Your task to perform on an android device: turn on translation in the chrome app Image 0: 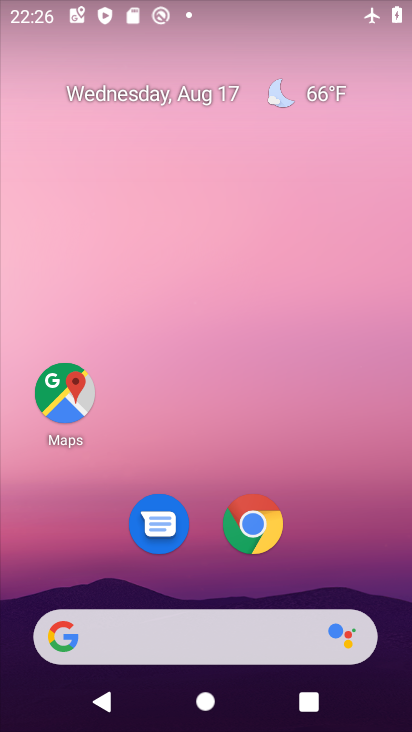
Step 0: click (253, 518)
Your task to perform on an android device: turn on translation in the chrome app Image 1: 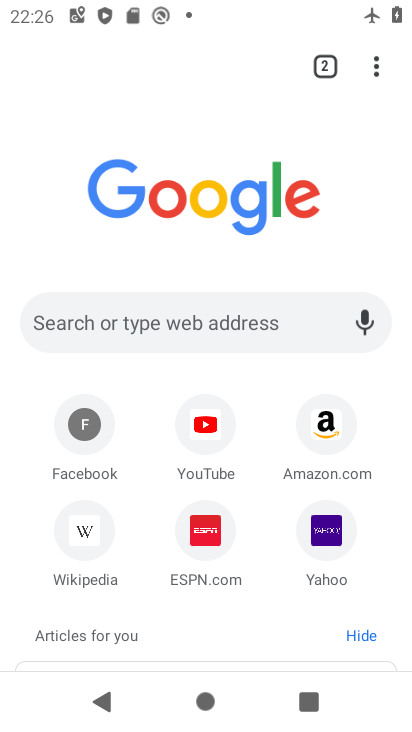
Step 1: click (375, 65)
Your task to perform on an android device: turn on translation in the chrome app Image 2: 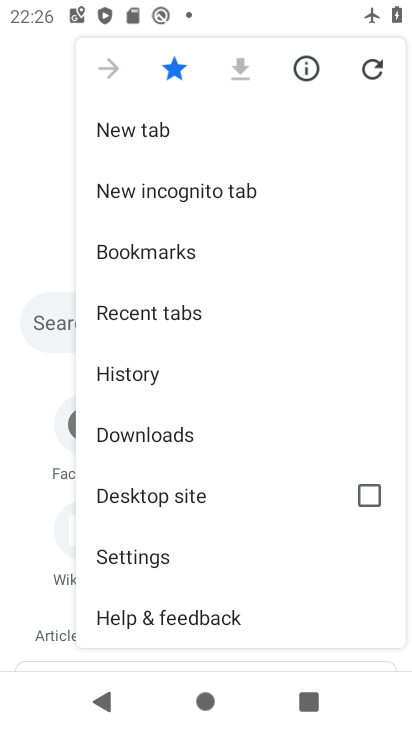
Step 2: click (175, 551)
Your task to perform on an android device: turn on translation in the chrome app Image 3: 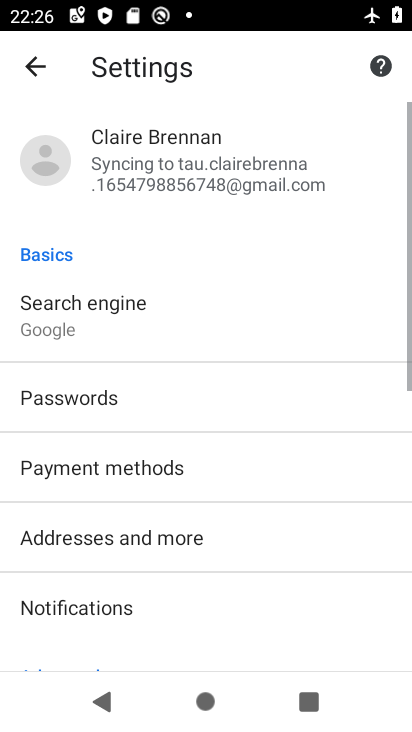
Step 3: drag from (301, 481) to (358, 68)
Your task to perform on an android device: turn on translation in the chrome app Image 4: 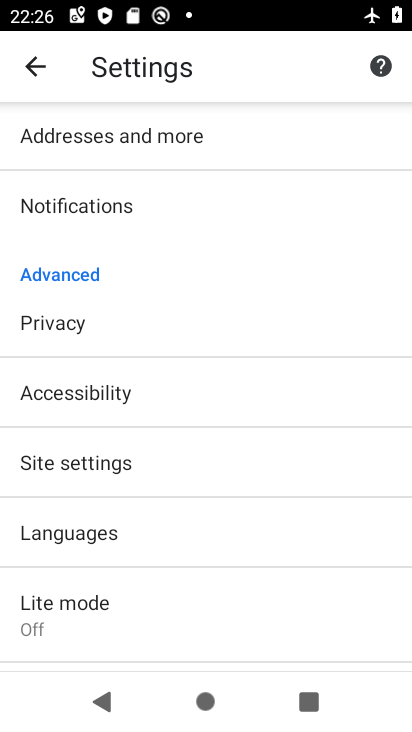
Step 4: click (248, 517)
Your task to perform on an android device: turn on translation in the chrome app Image 5: 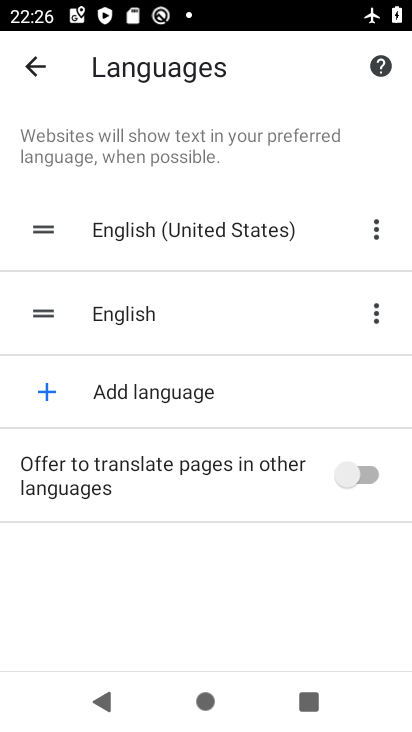
Step 5: click (356, 473)
Your task to perform on an android device: turn on translation in the chrome app Image 6: 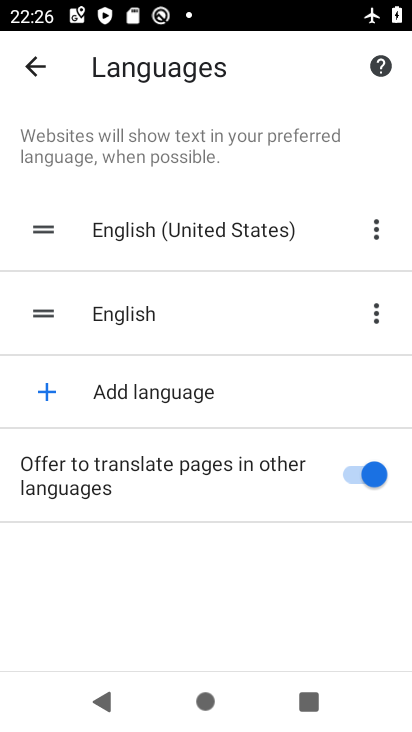
Step 6: task complete